Your task to perform on an android device: Open accessibility settings Image 0: 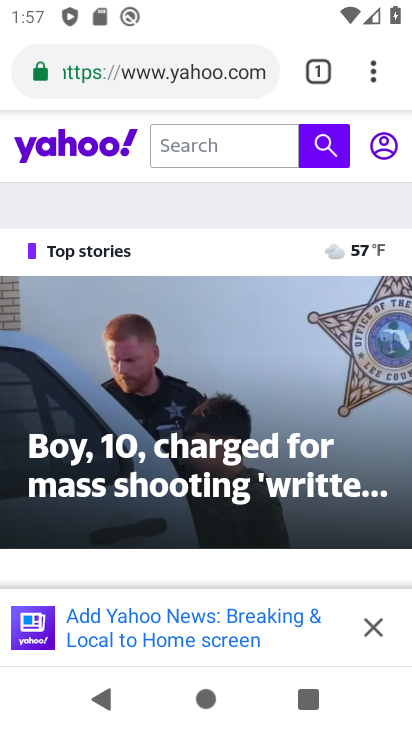
Step 0: click (376, 72)
Your task to perform on an android device: Open accessibility settings Image 1: 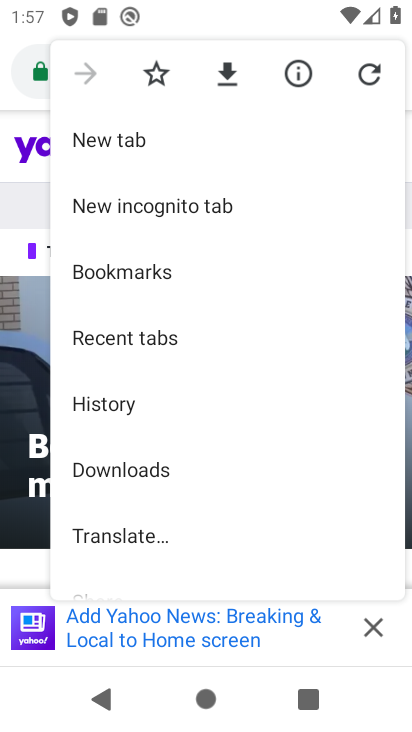
Step 1: drag from (160, 552) to (169, 88)
Your task to perform on an android device: Open accessibility settings Image 2: 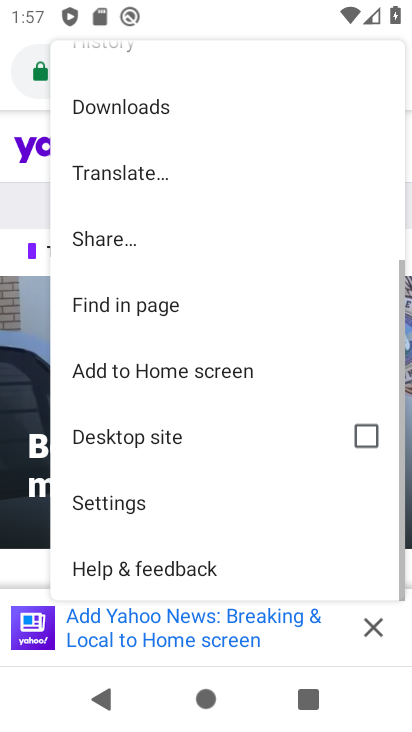
Step 2: drag from (171, 565) to (167, 185)
Your task to perform on an android device: Open accessibility settings Image 3: 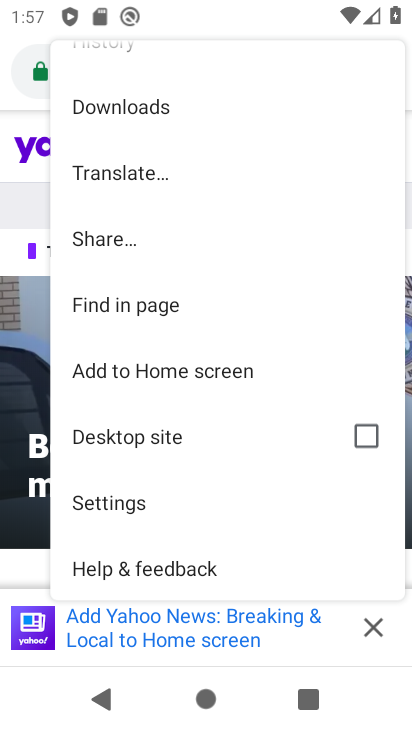
Step 3: click (132, 515)
Your task to perform on an android device: Open accessibility settings Image 4: 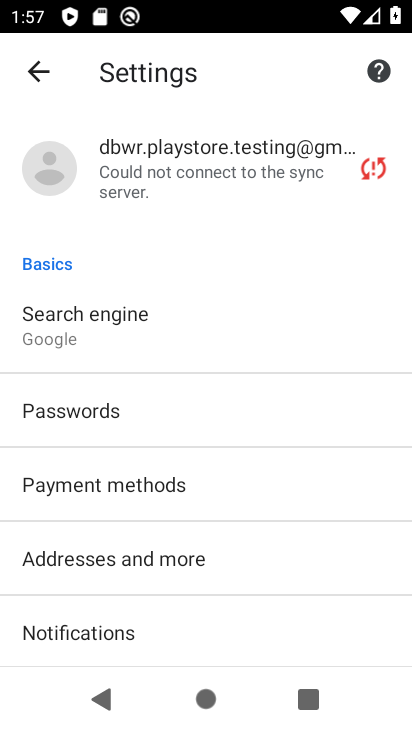
Step 4: drag from (124, 636) to (166, 172)
Your task to perform on an android device: Open accessibility settings Image 5: 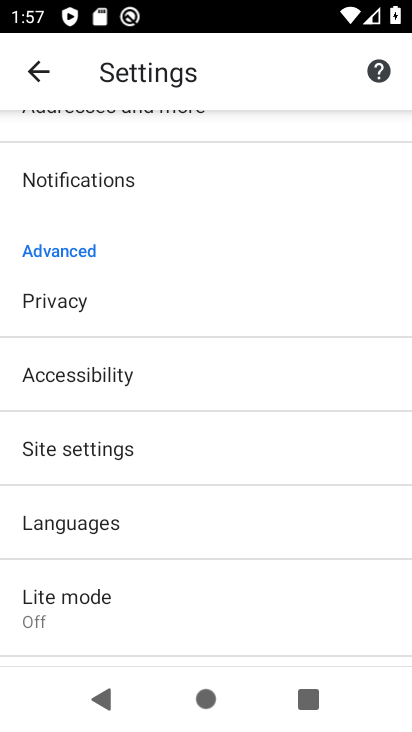
Step 5: click (137, 378)
Your task to perform on an android device: Open accessibility settings Image 6: 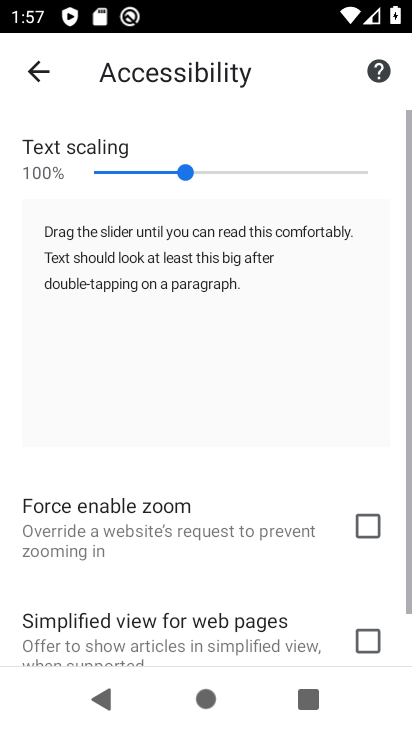
Step 6: task complete